Your task to perform on an android device: Add energizer triple a to the cart on target Image 0: 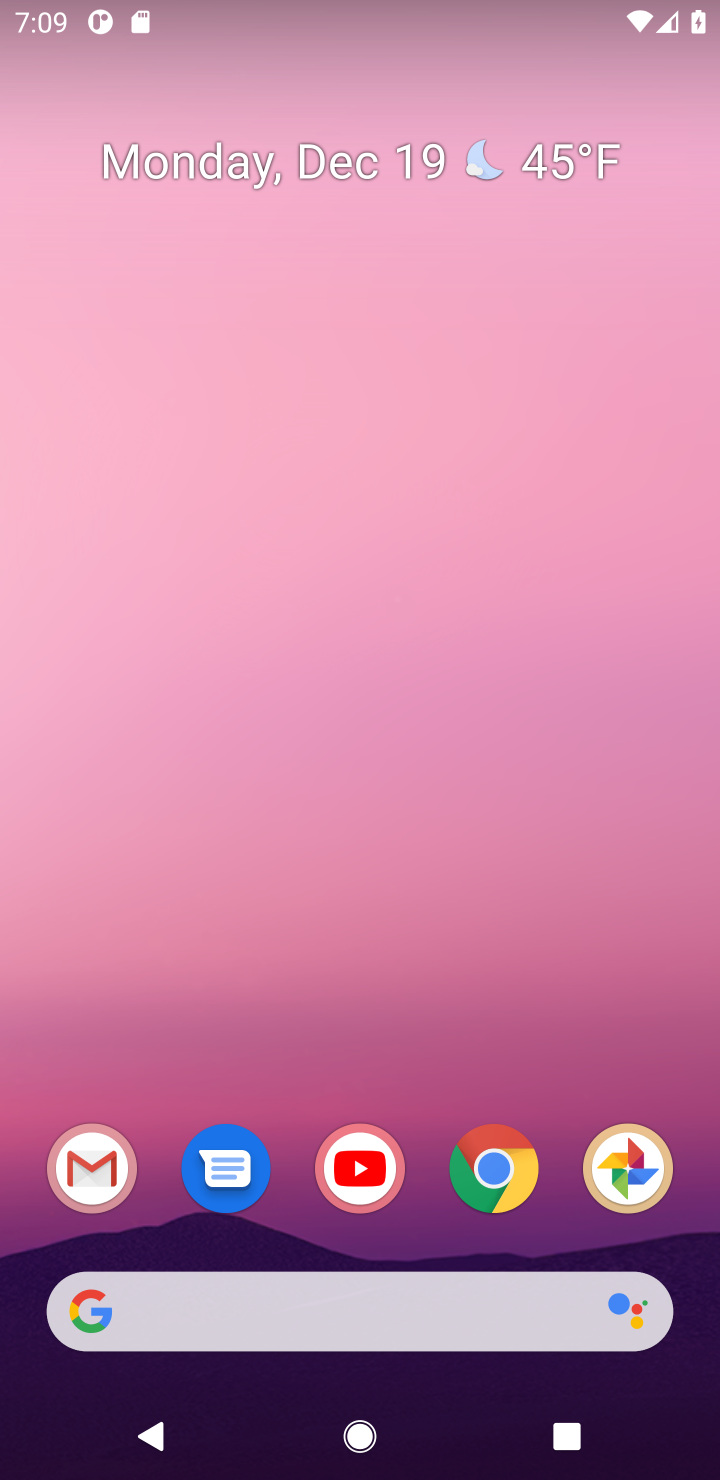
Step 0: click (491, 1186)
Your task to perform on an android device: Add energizer triple a to the cart on target Image 1: 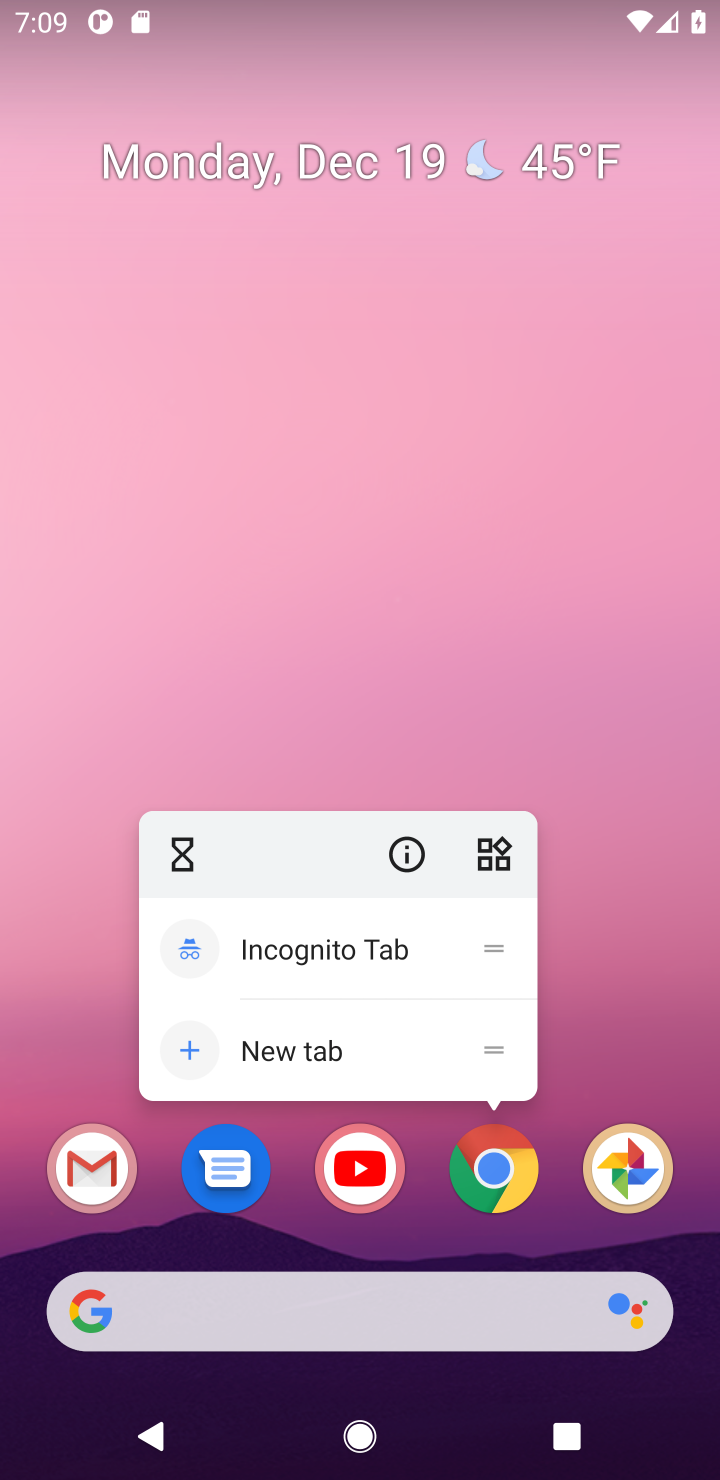
Step 1: click (496, 1179)
Your task to perform on an android device: Add energizer triple a to the cart on target Image 2: 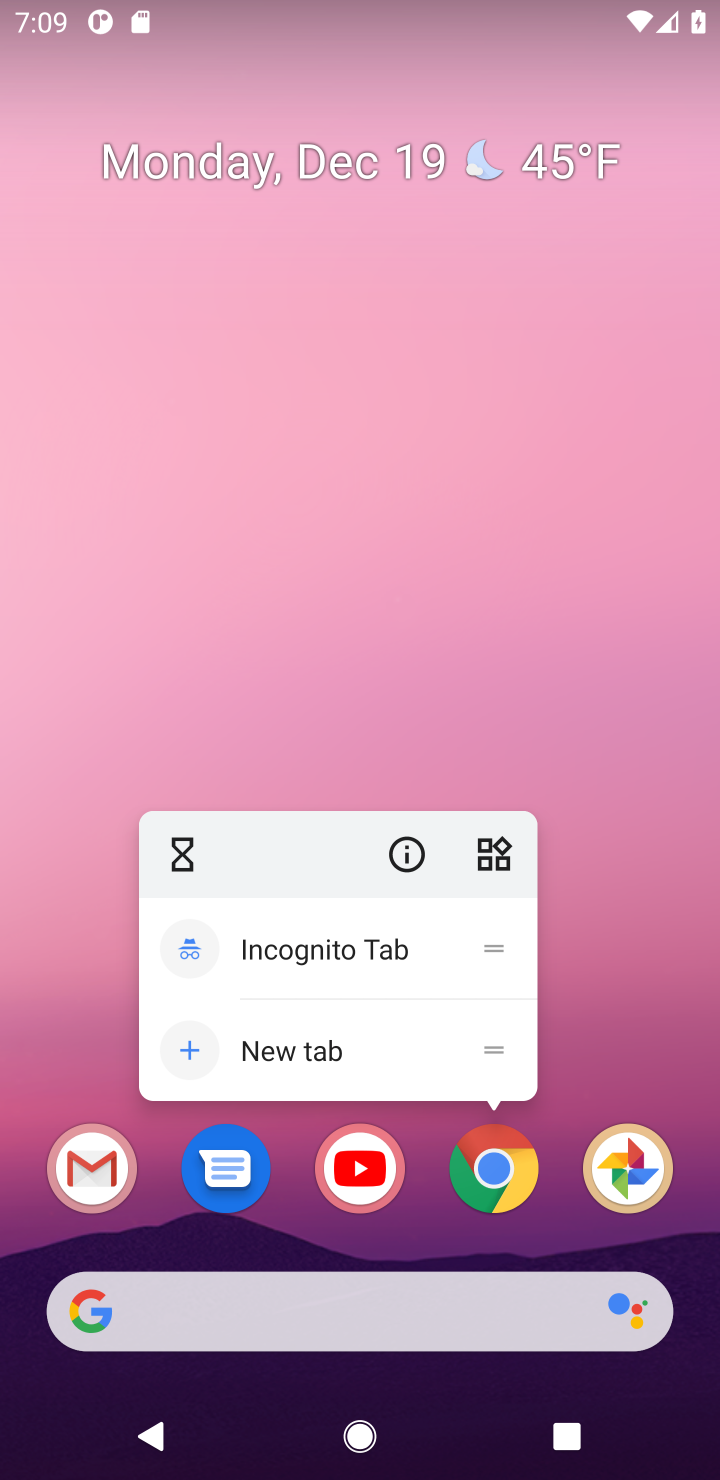
Step 2: click (496, 1179)
Your task to perform on an android device: Add energizer triple a to the cart on target Image 3: 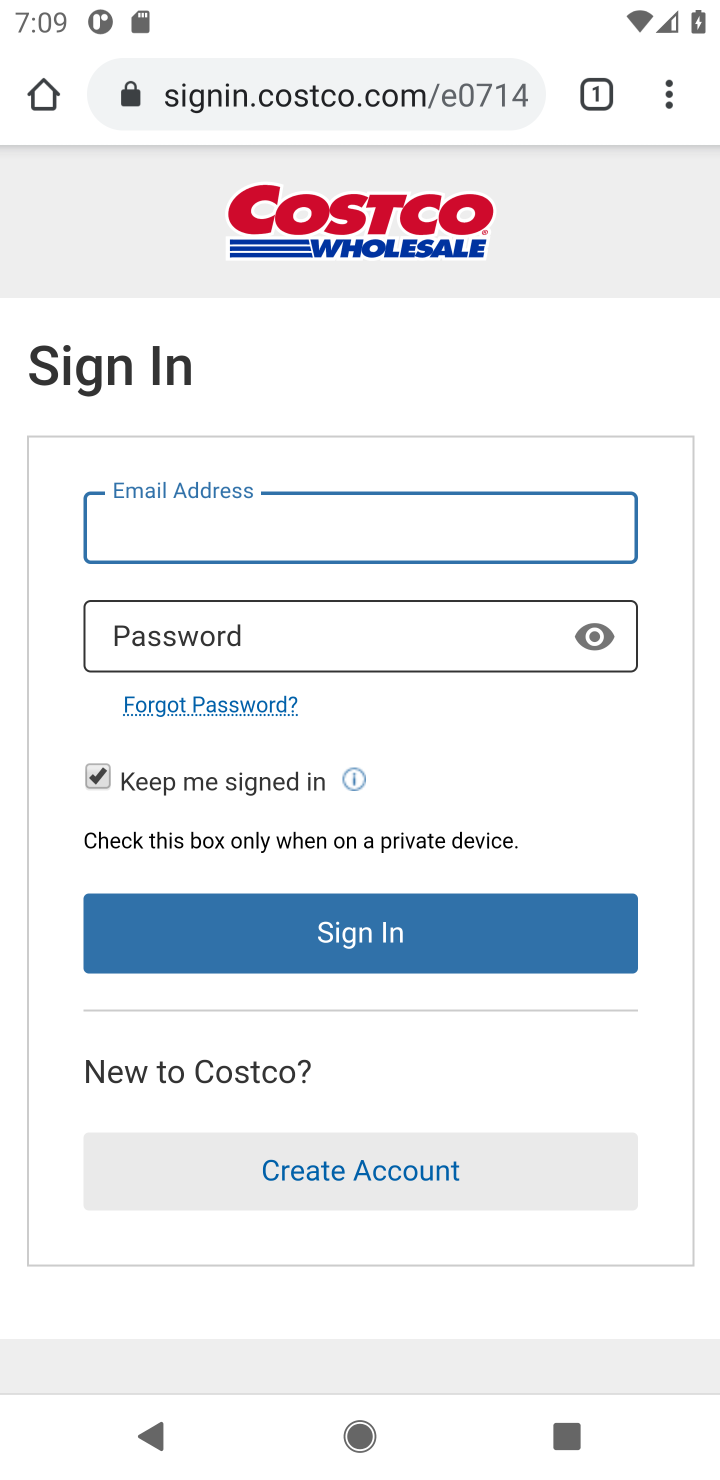
Step 3: click (243, 94)
Your task to perform on an android device: Add energizer triple a to the cart on target Image 4: 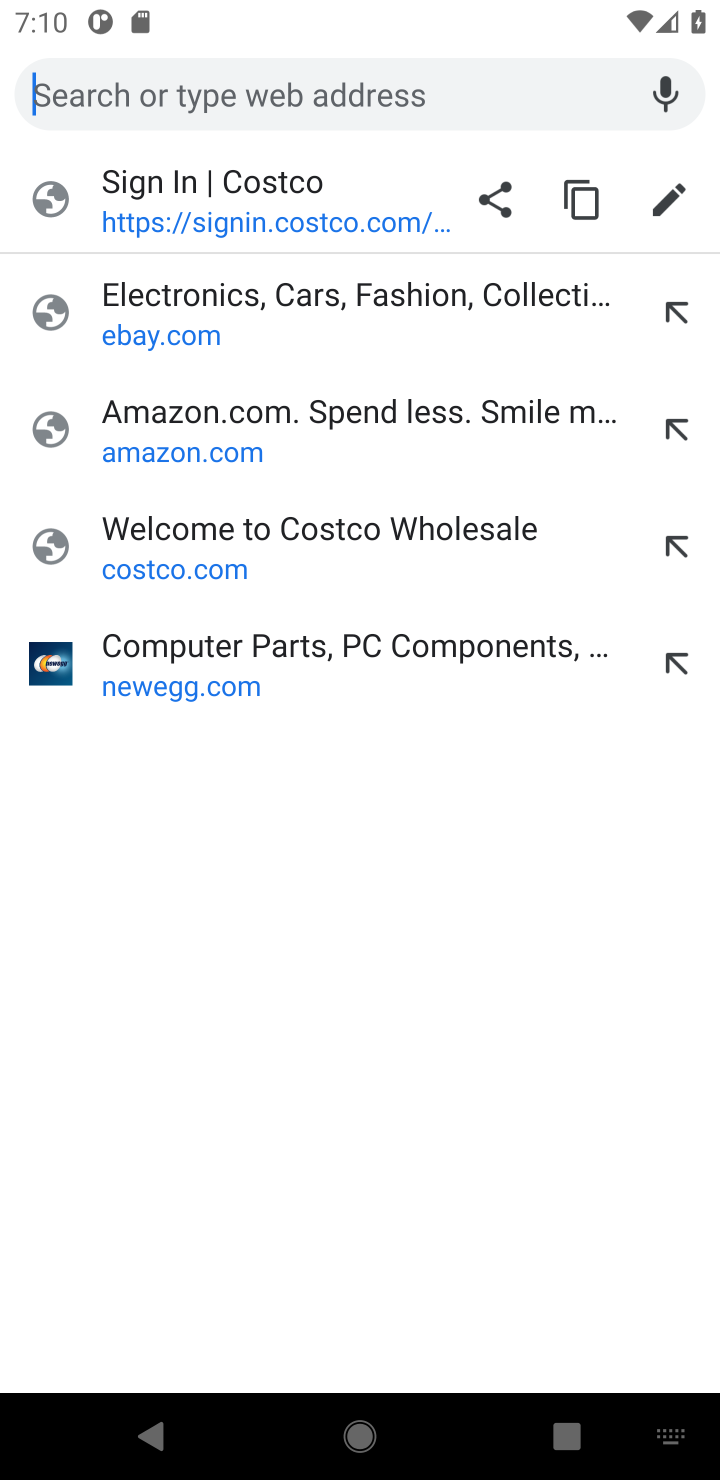
Step 4: type "target.com"
Your task to perform on an android device: Add energizer triple a to the cart on target Image 5: 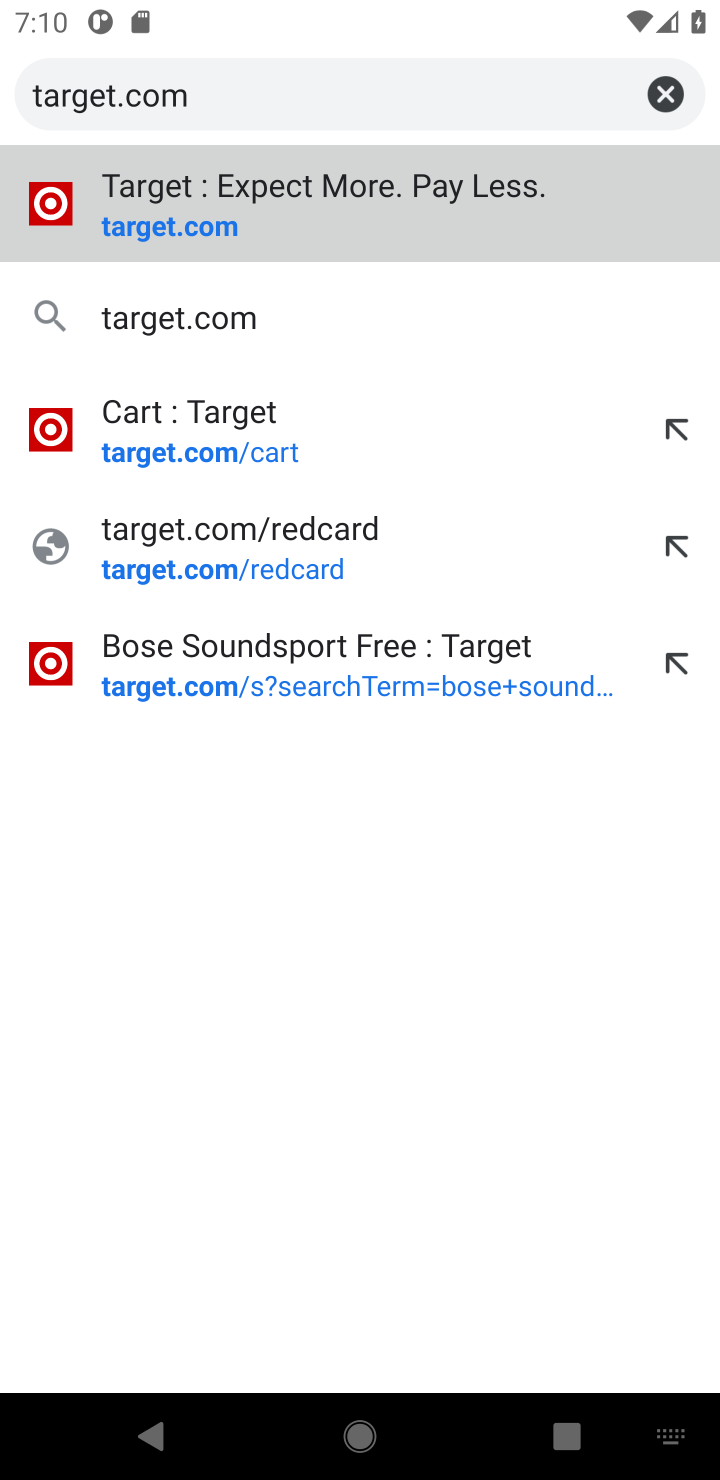
Step 5: click (156, 225)
Your task to perform on an android device: Add energizer triple a to the cart on target Image 6: 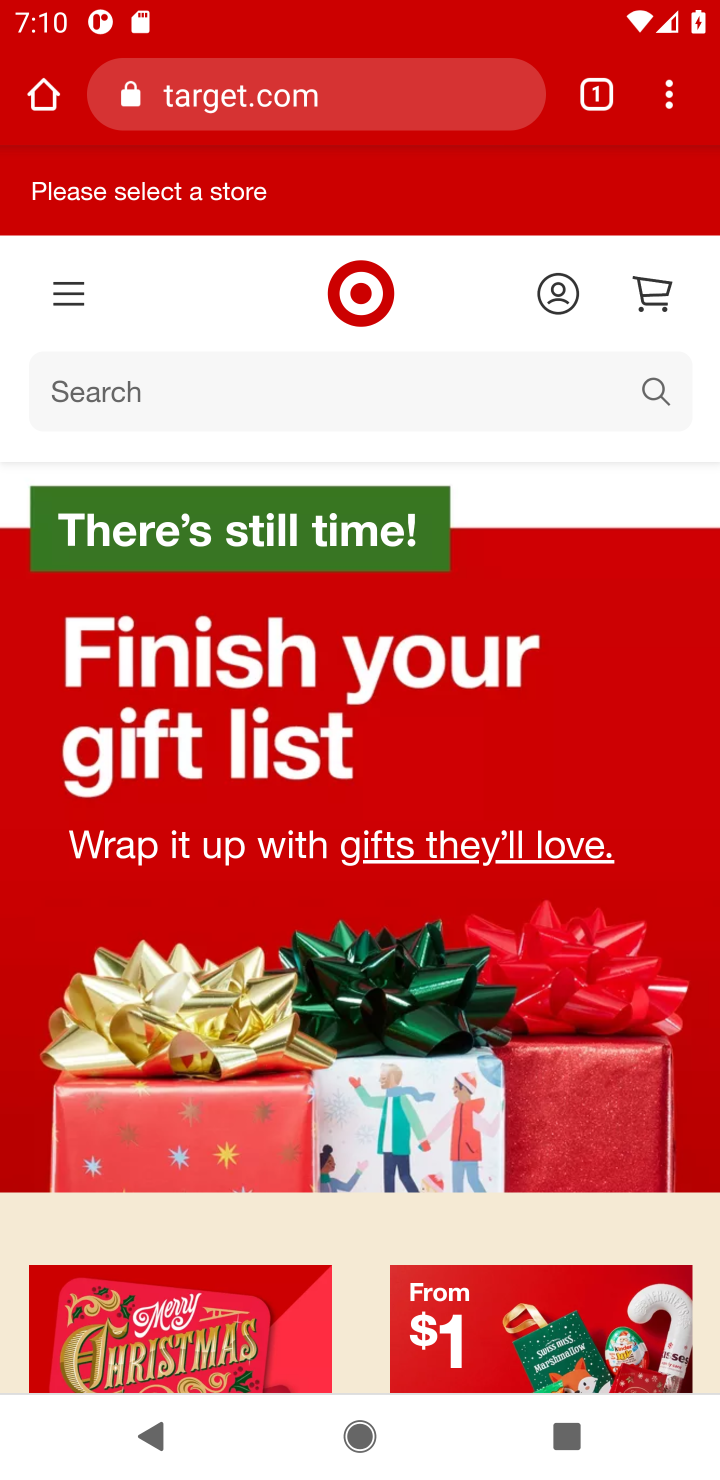
Step 6: click (75, 391)
Your task to perform on an android device: Add energizer triple a to the cart on target Image 7: 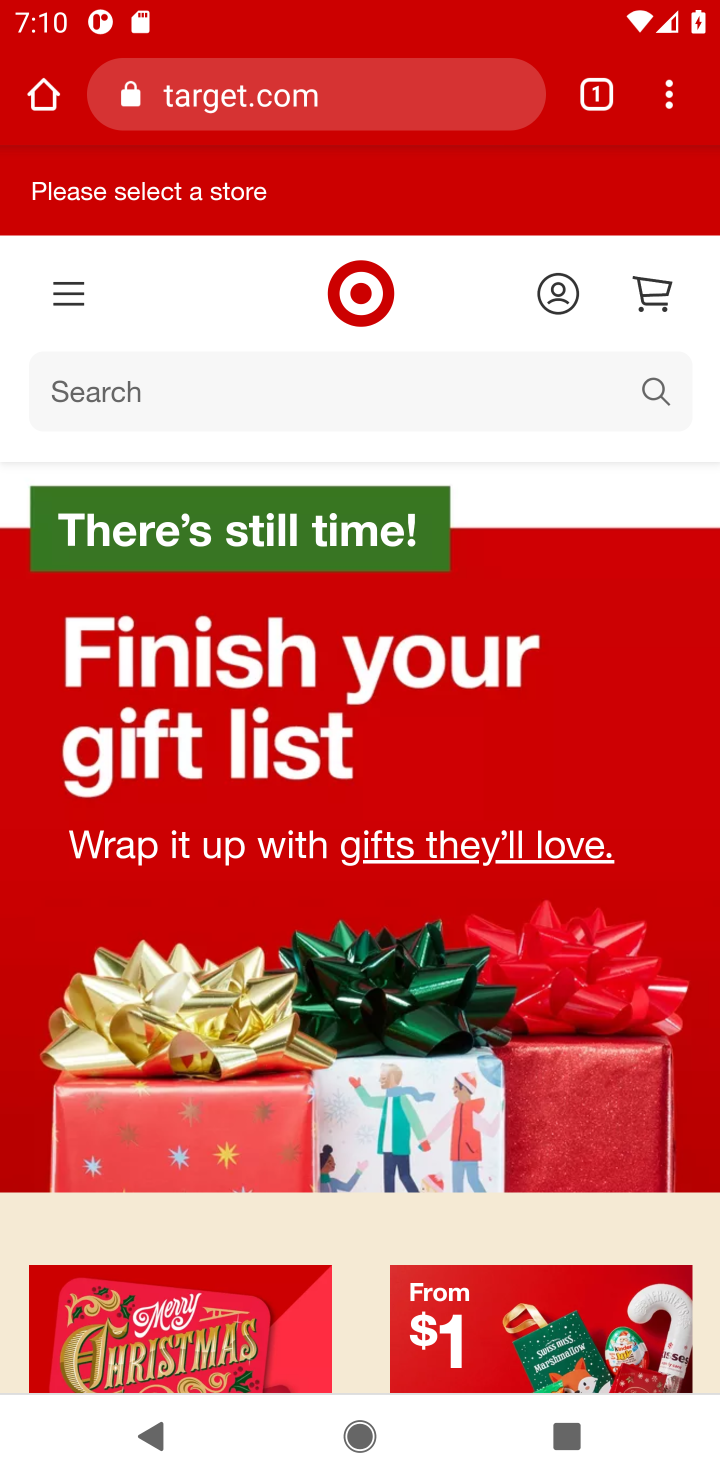
Step 7: click (100, 397)
Your task to perform on an android device: Add energizer triple a to the cart on target Image 8: 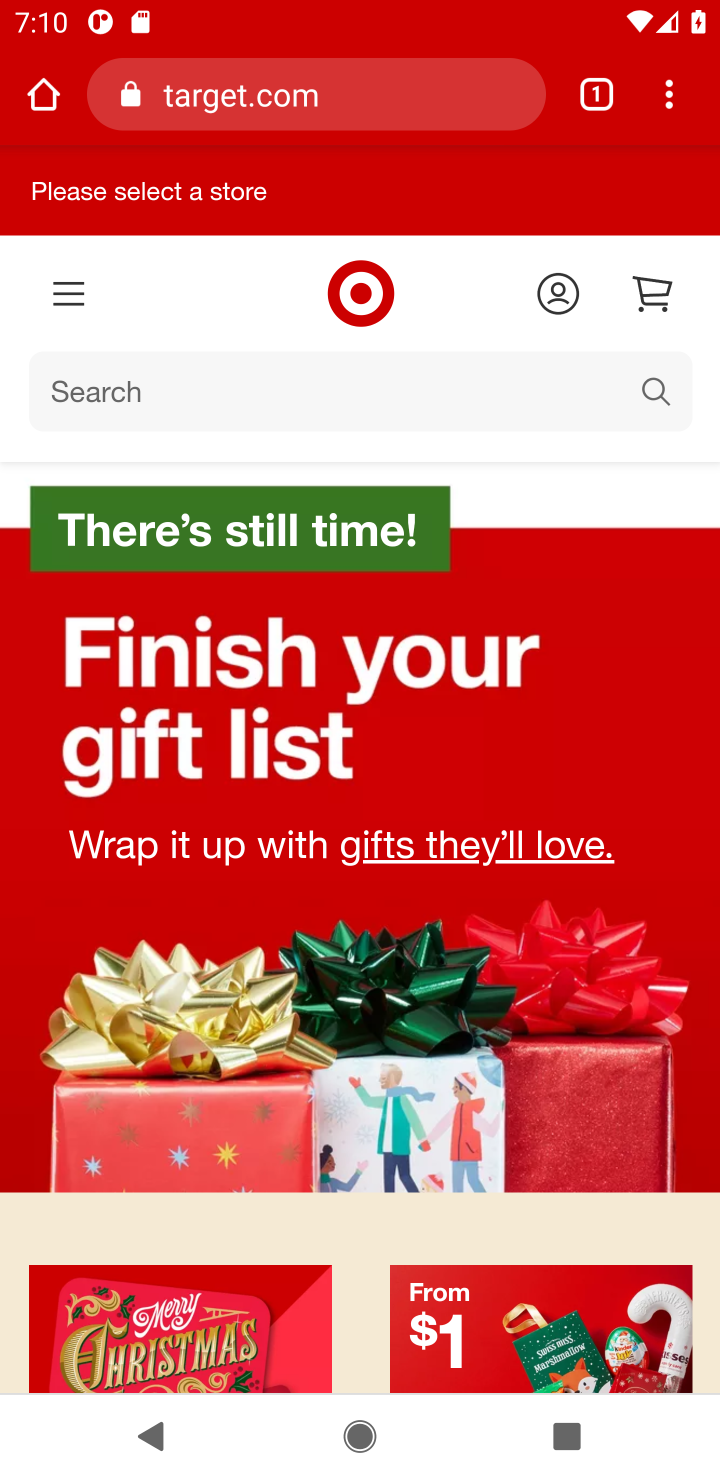
Step 8: click (651, 386)
Your task to perform on an android device: Add energizer triple a to the cart on target Image 9: 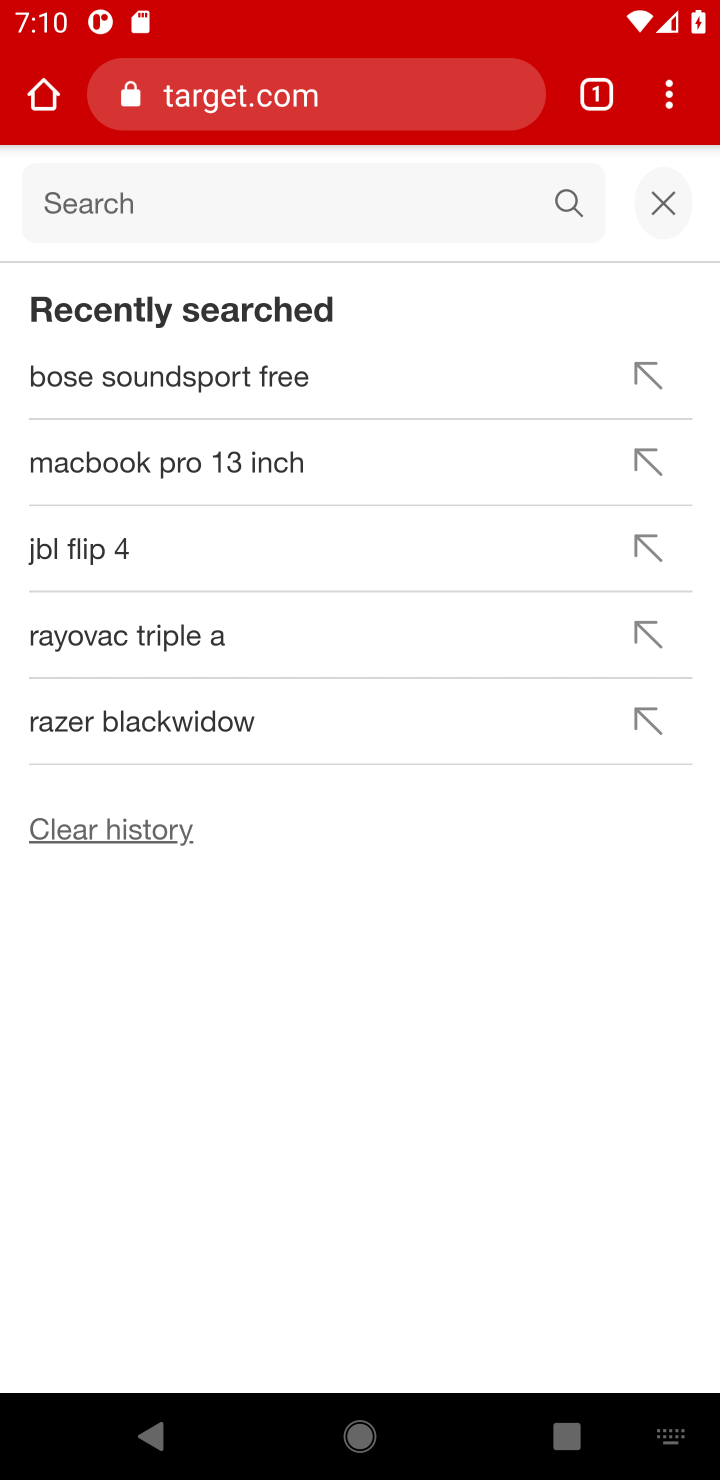
Step 9: type "energizer triple a"
Your task to perform on an android device: Add energizer triple a to the cart on target Image 10: 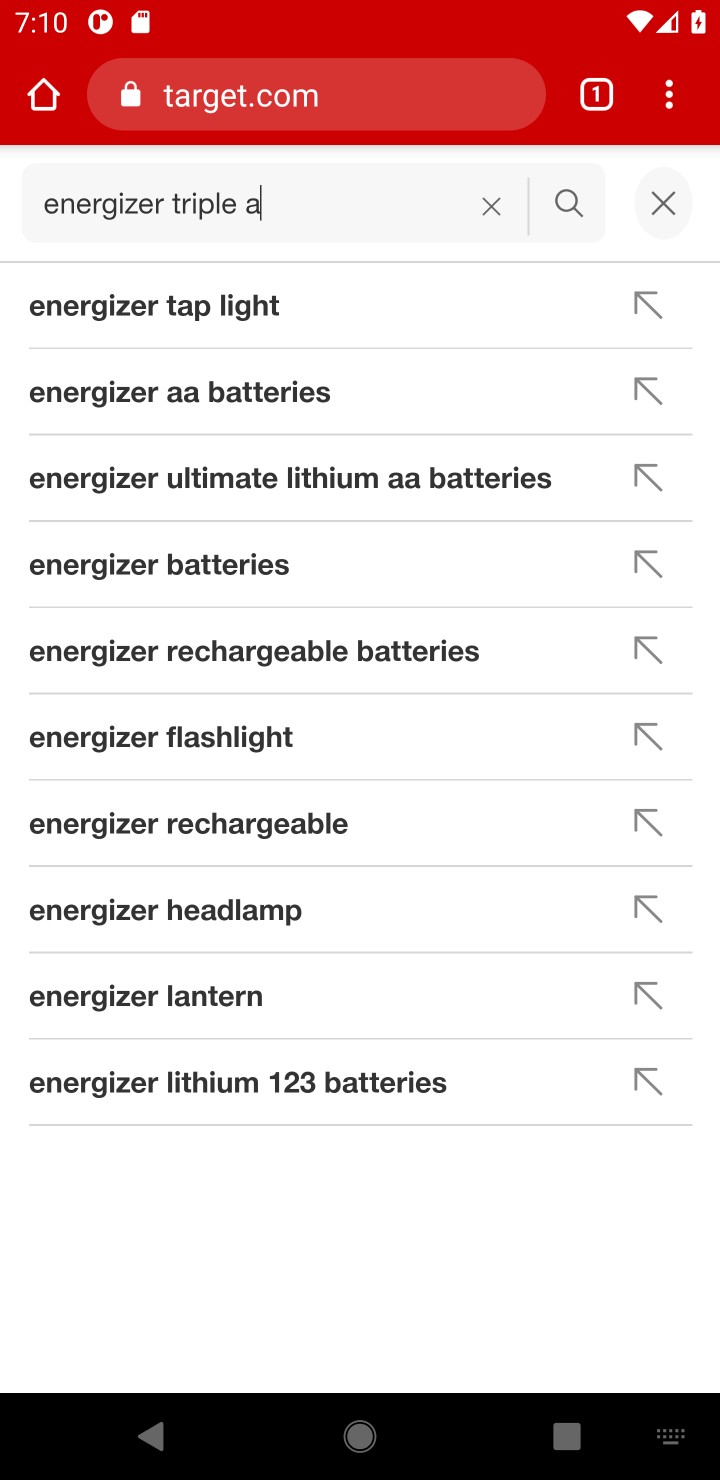
Step 10: click (556, 210)
Your task to perform on an android device: Add energizer triple a to the cart on target Image 11: 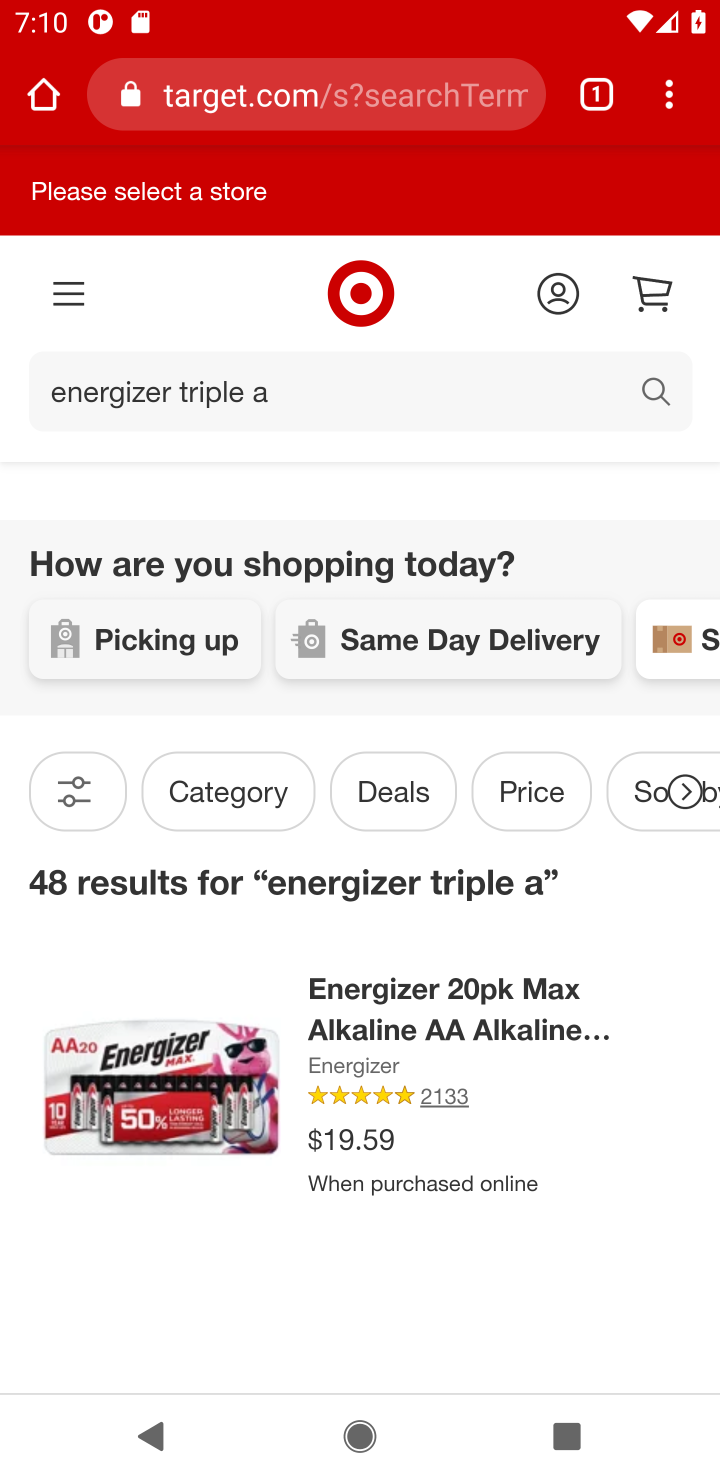
Step 11: drag from (248, 1171) to (382, 463)
Your task to perform on an android device: Add energizer triple a to the cart on target Image 12: 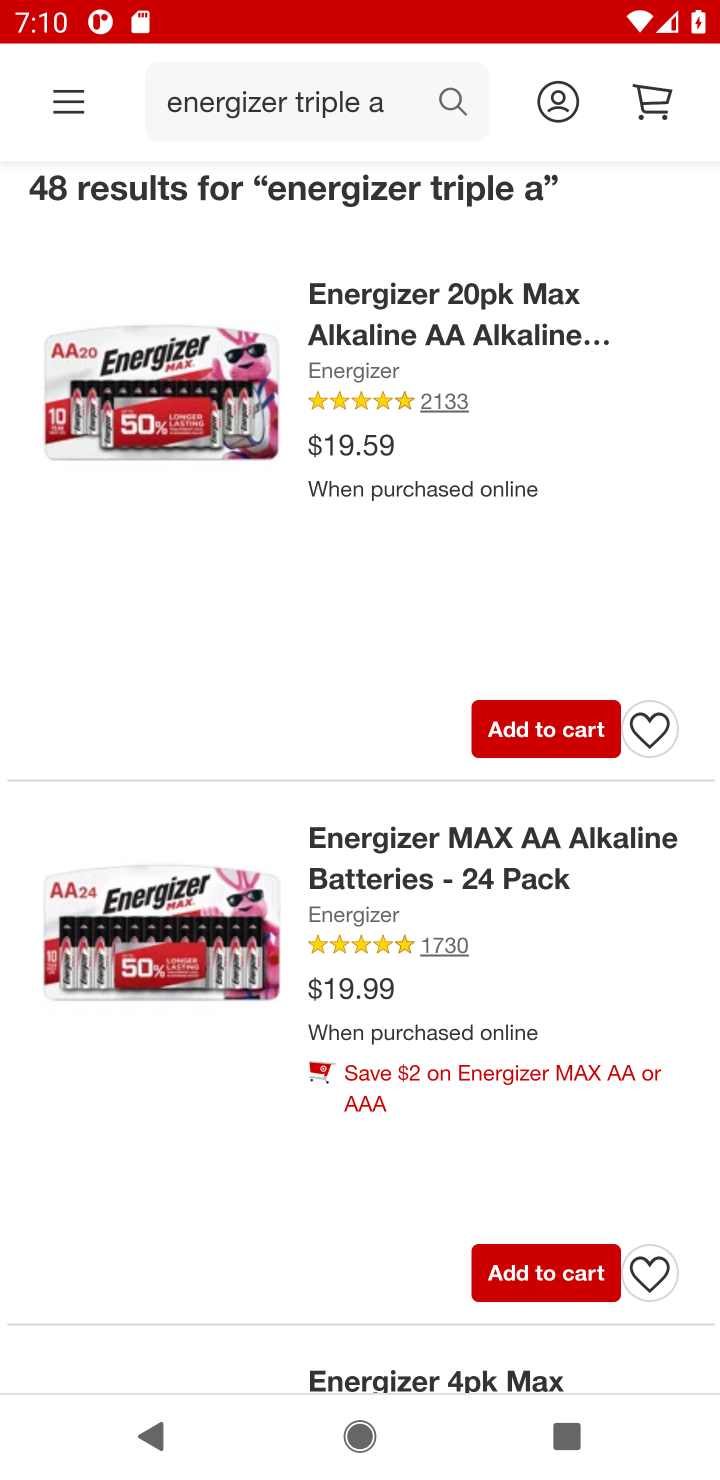
Step 12: drag from (334, 982) to (383, 427)
Your task to perform on an android device: Add energizer triple a to the cart on target Image 13: 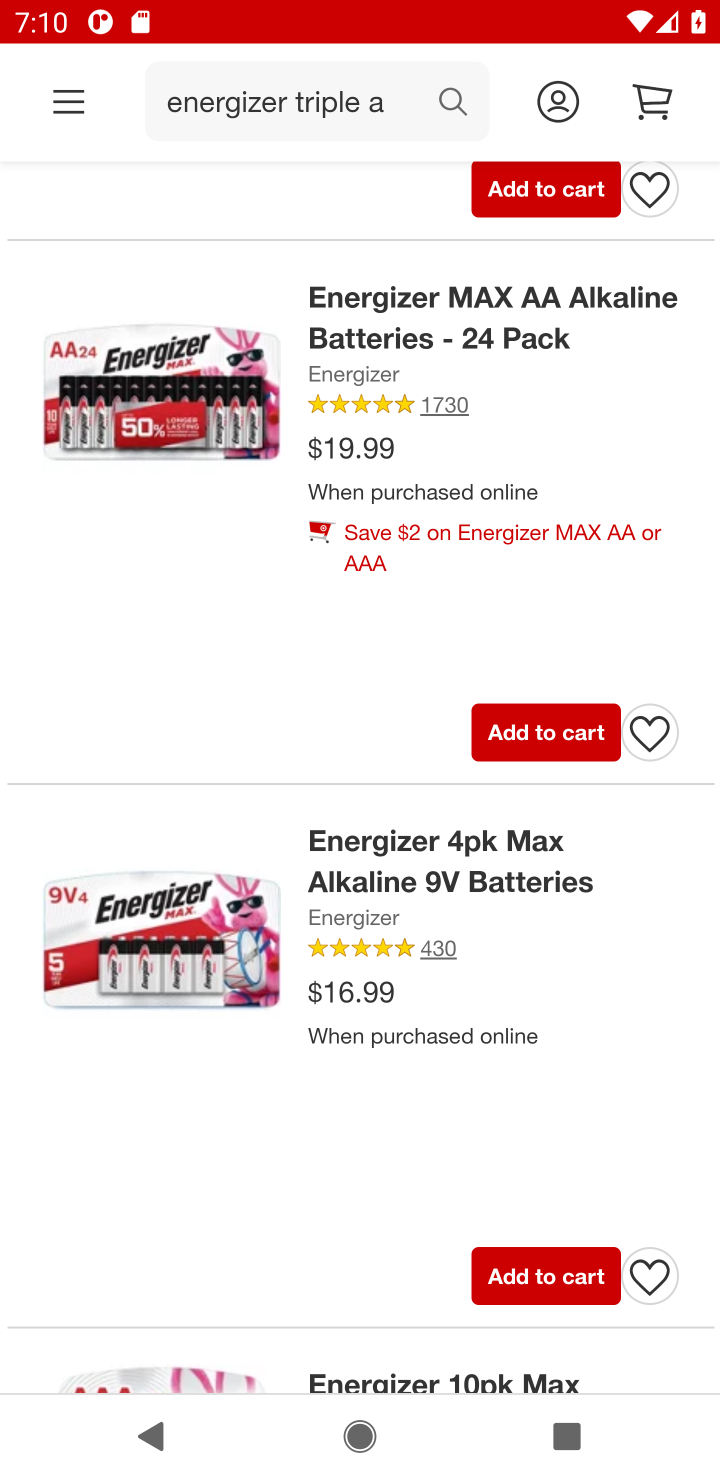
Step 13: drag from (249, 954) to (293, 321)
Your task to perform on an android device: Add energizer triple a to the cart on target Image 14: 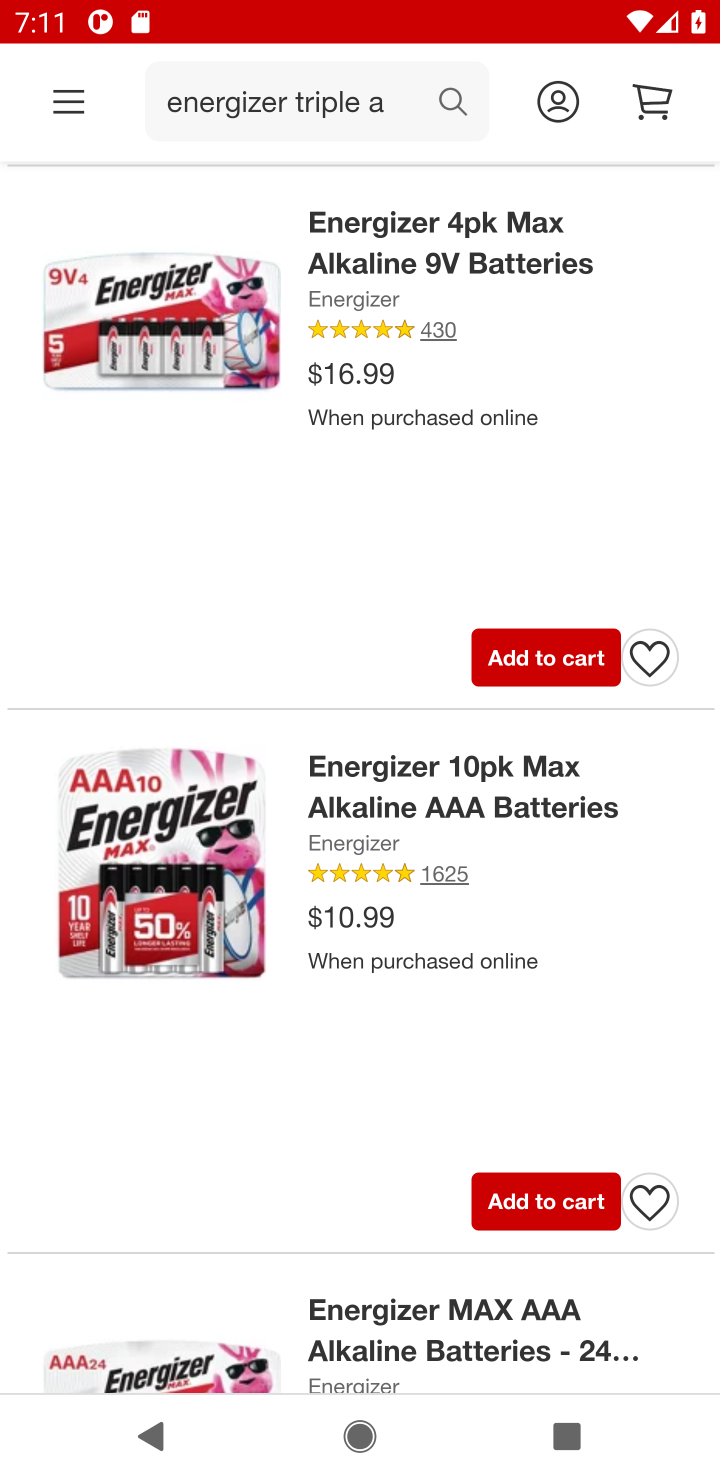
Step 14: click (564, 1200)
Your task to perform on an android device: Add energizer triple a to the cart on target Image 15: 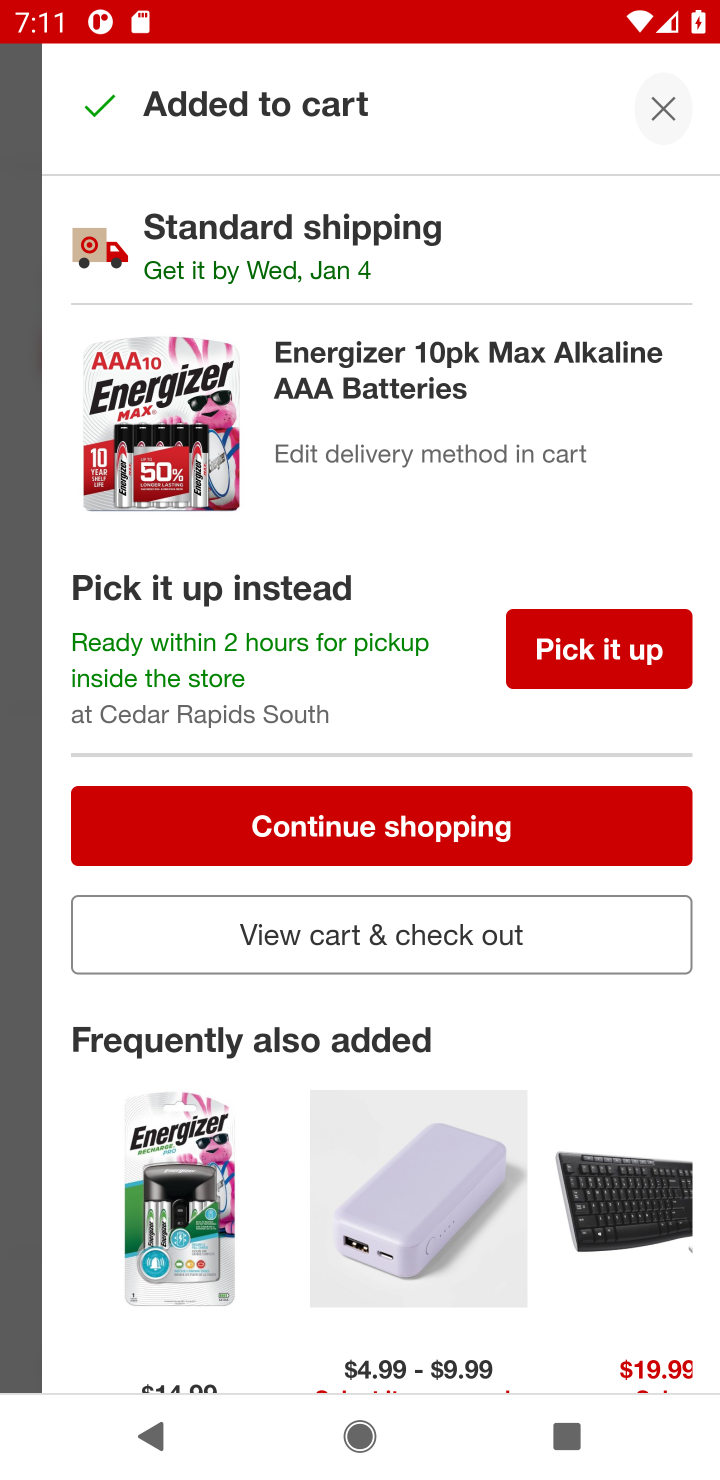
Step 15: task complete